Your task to perform on an android device: Search for vegetarian restaurants on Maps Image 0: 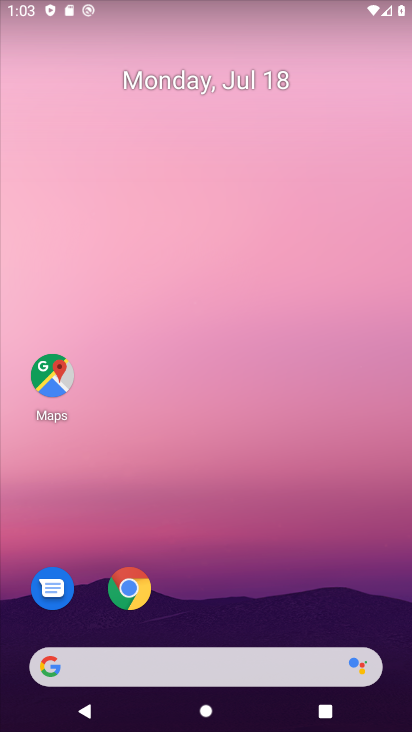
Step 0: drag from (206, 632) to (283, 41)
Your task to perform on an android device: Search for vegetarian restaurants on Maps Image 1: 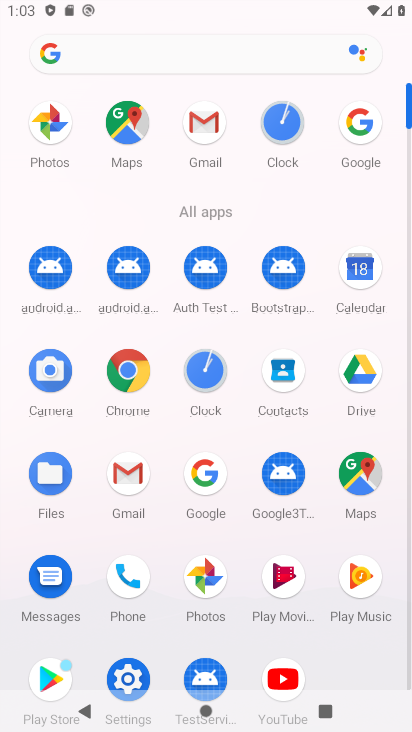
Step 1: click (365, 490)
Your task to perform on an android device: Search for vegetarian restaurants on Maps Image 2: 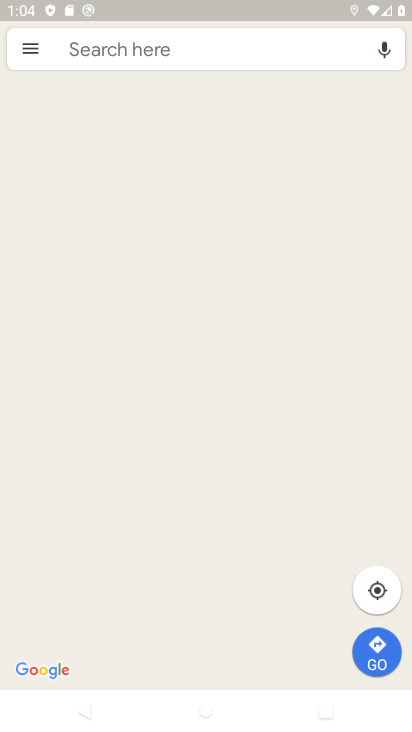
Step 2: click (139, 42)
Your task to perform on an android device: Search for vegetarian restaurants on Maps Image 3: 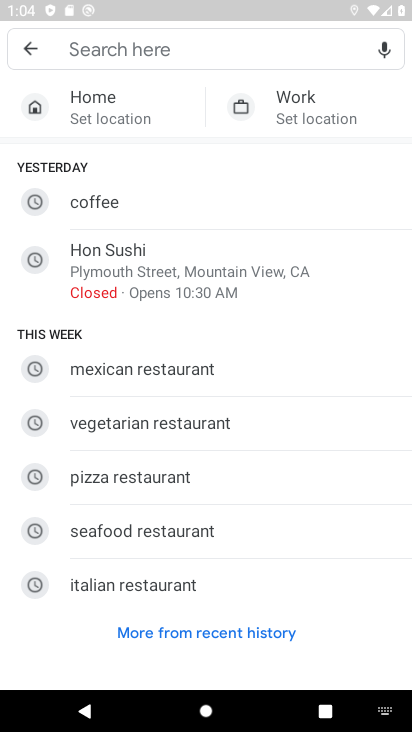
Step 3: type "vegetarian restaurantrs"
Your task to perform on an android device: Search for vegetarian restaurants on Maps Image 4: 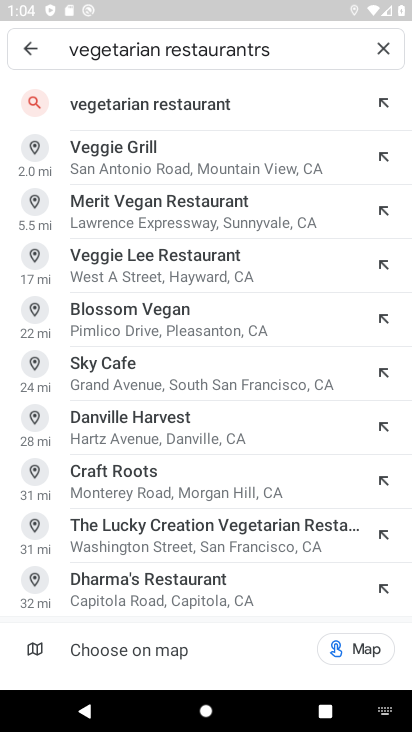
Step 4: click (192, 108)
Your task to perform on an android device: Search for vegetarian restaurants on Maps Image 5: 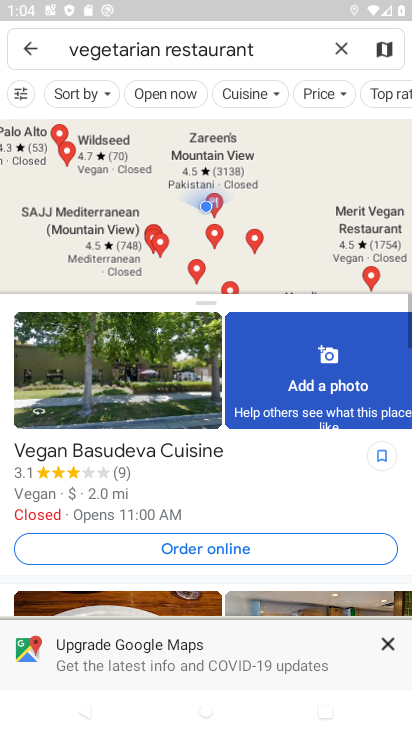
Step 5: task complete